Your task to perform on an android device: clear all cookies in the chrome app Image 0: 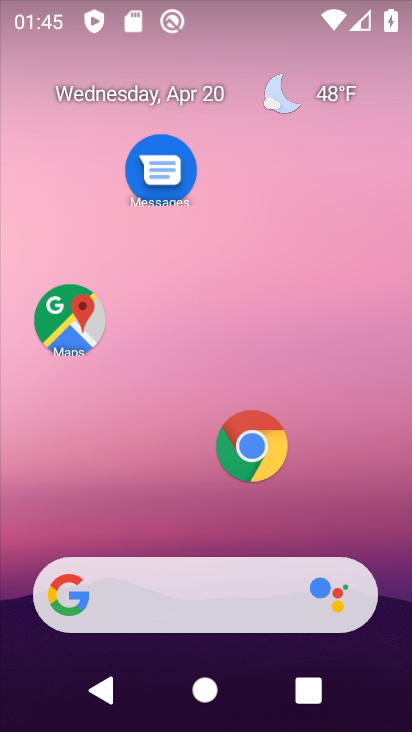
Step 0: click (258, 448)
Your task to perform on an android device: clear all cookies in the chrome app Image 1: 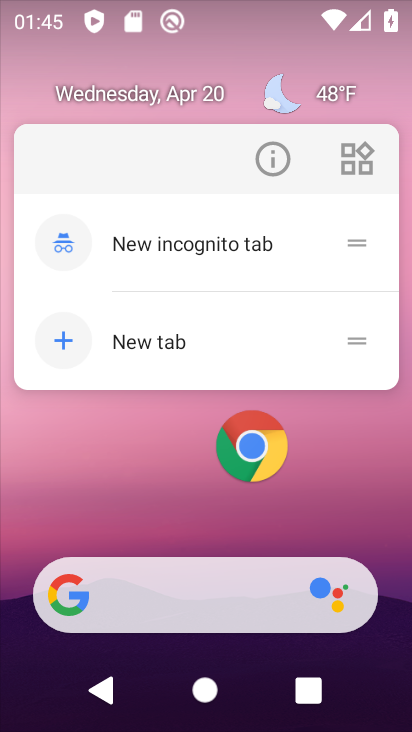
Step 1: click (259, 455)
Your task to perform on an android device: clear all cookies in the chrome app Image 2: 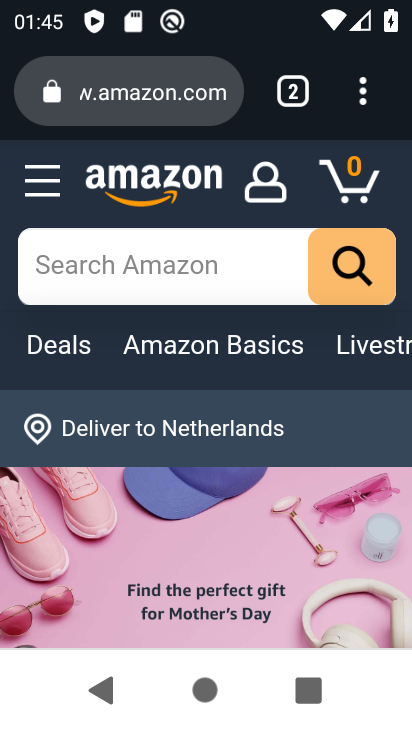
Step 2: click (365, 87)
Your task to perform on an android device: clear all cookies in the chrome app Image 3: 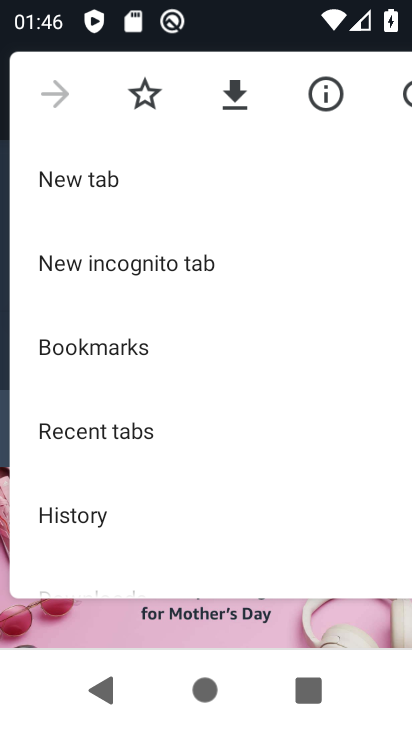
Step 3: click (134, 509)
Your task to perform on an android device: clear all cookies in the chrome app Image 4: 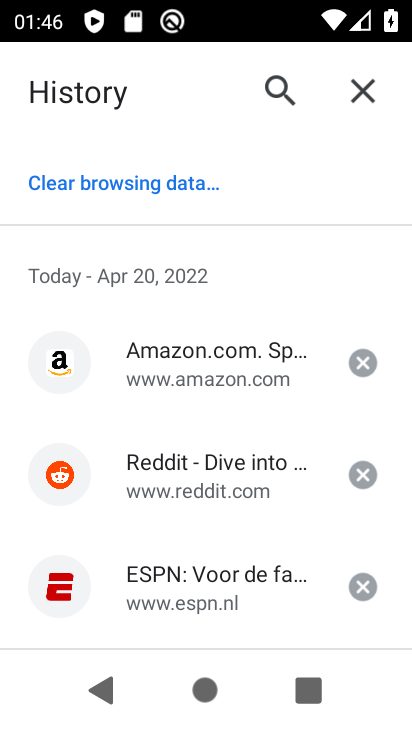
Step 4: click (155, 186)
Your task to perform on an android device: clear all cookies in the chrome app Image 5: 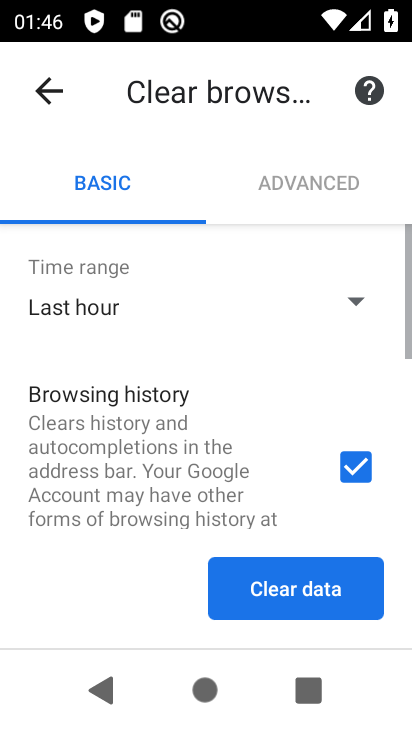
Step 5: drag from (285, 501) to (285, 310)
Your task to perform on an android device: clear all cookies in the chrome app Image 6: 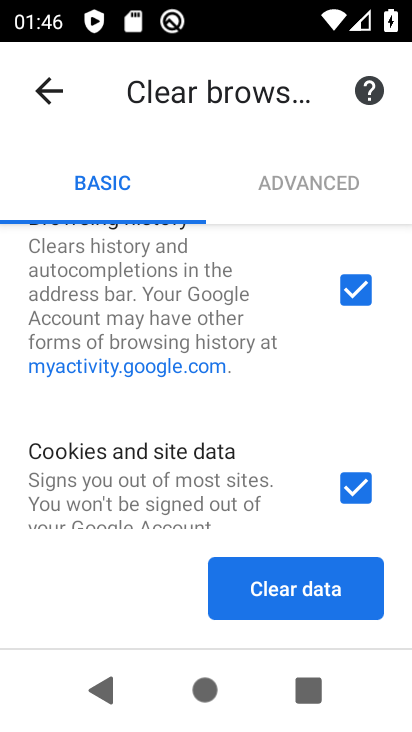
Step 6: click (359, 287)
Your task to perform on an android device: clear all cookies in the chrome app Image 7: 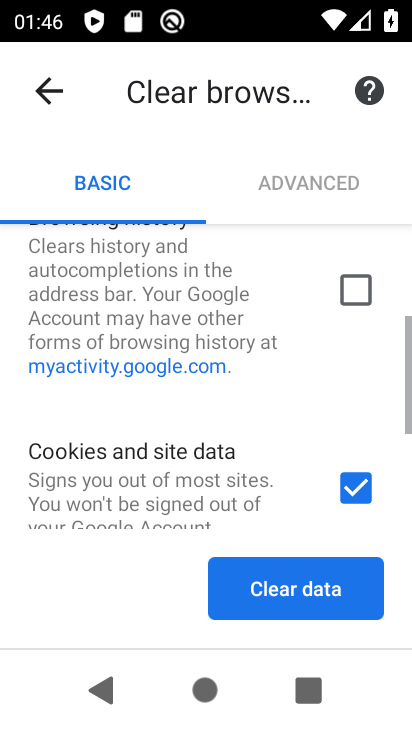
Step 7: drag from (246, 496) to (248, 168)
Your task to perform on an android device: clear all cookies in the chrome app Image 8: 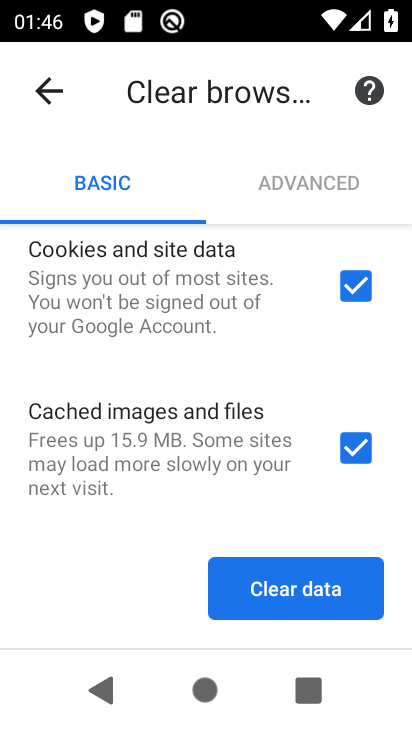
Step 8: click (352, 438)
Your task to perform on an android device: clear all cookies in the chrome app Image 9: 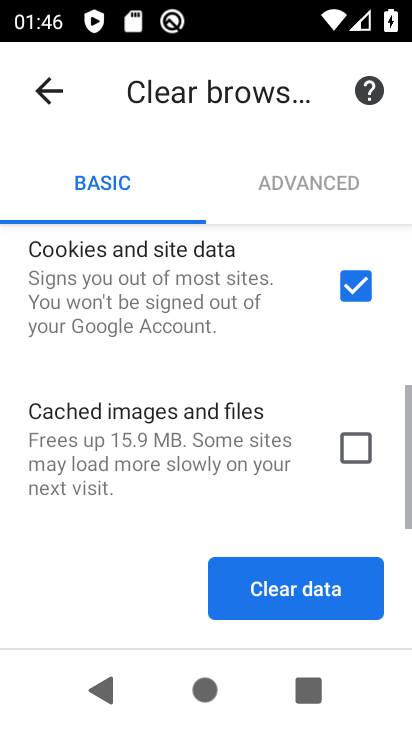
Step 9: click (299, 586)
Your task to perform on an android device: clear all cookies in the chrome app Image 10: 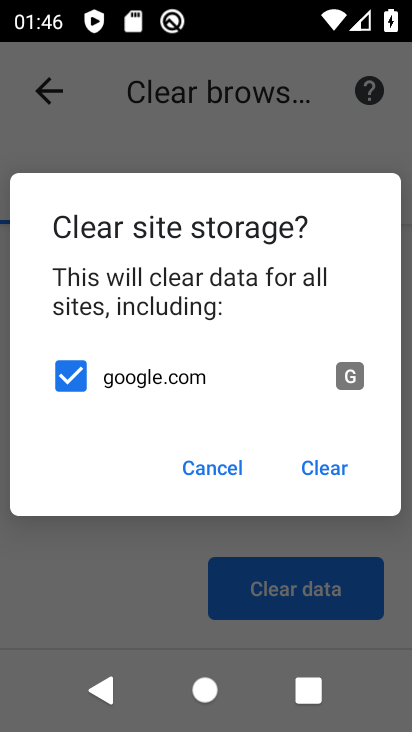
Step 10: click (329, 472)
Your task to perform on an android device: clear all cookies in the chrome app Image 11: 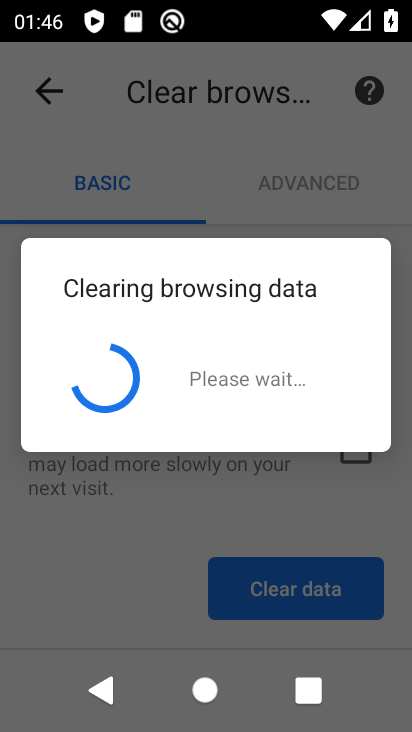
Step 11: task complete